Your task to perform on an android device: open device folders in google photos Image 0: 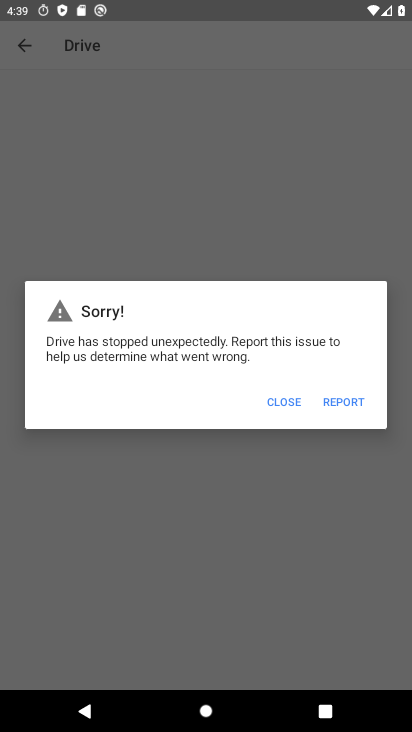
Step 0: press home button
Your task to perform on an android device: open device folders in google photos Image 1: 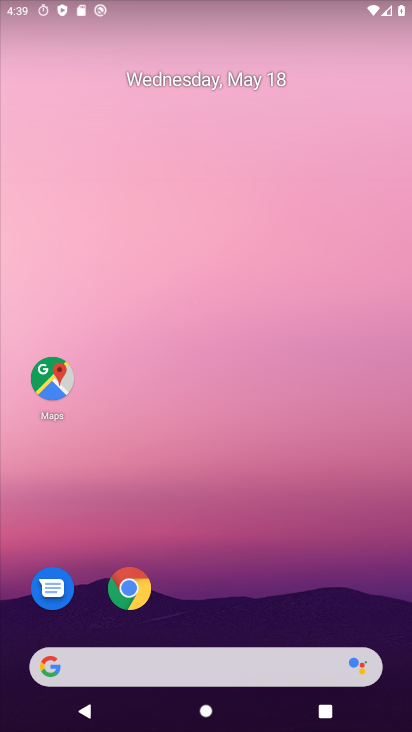
Step 1: drag from (227, 598) to (300, 45)
Your task to perform on an android device: open device folders in google photos Image 2: 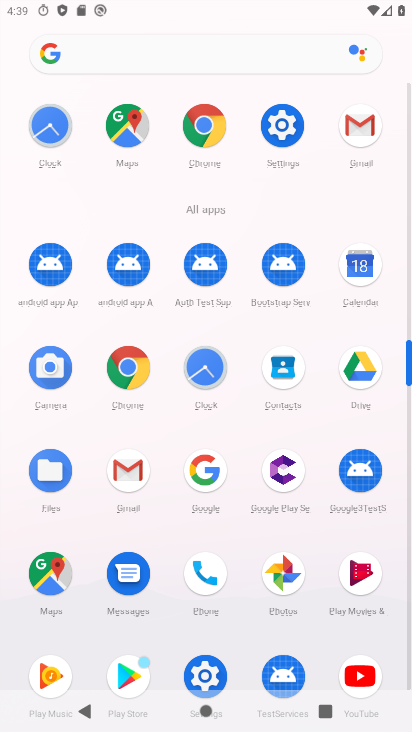
Step 2: click (276, 569)
Your task to perform on an android device: open device folders in google photos Image 3: 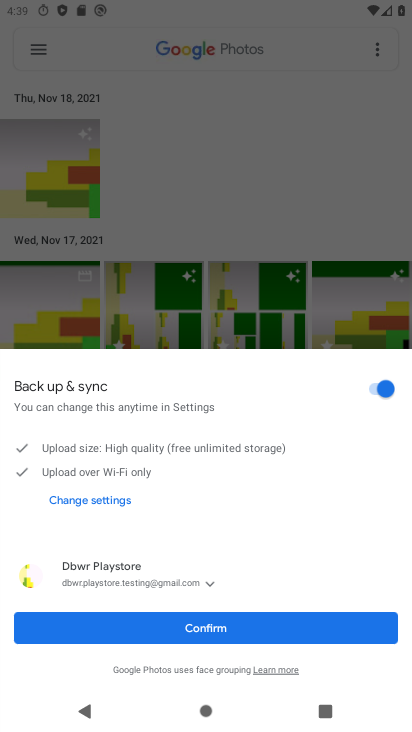
Step 3: click (211, 639)
Your task to perform on an android device: open device folders in google photos Image 4: 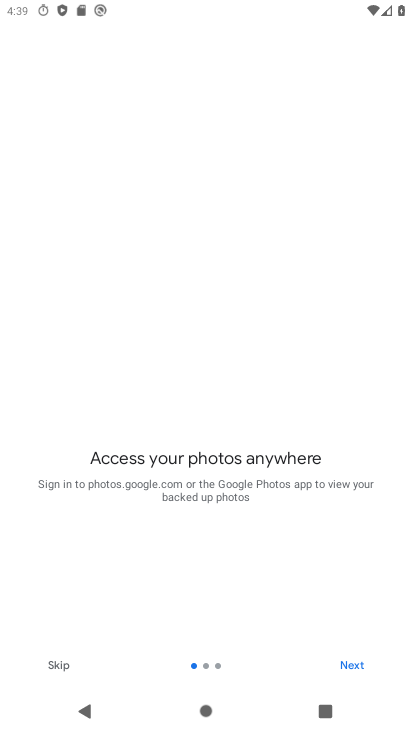
Step 4: click (352, 667)
Your task to perform on an android device: open device folders in google photos Image 5: 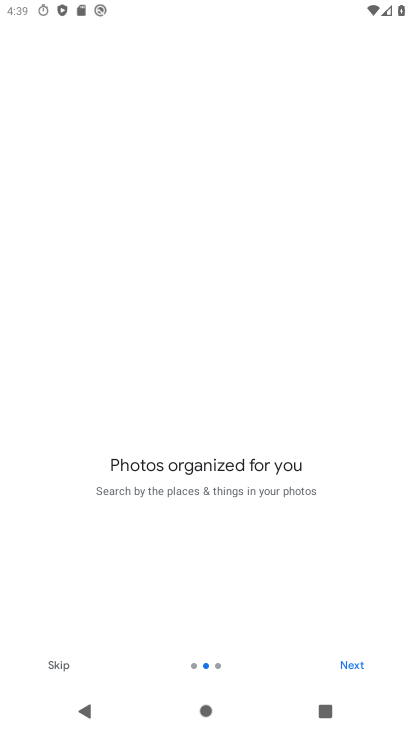
Step 5: click (352, 667)
Your task to perform on an android device: open device folders in google photos Image 6: 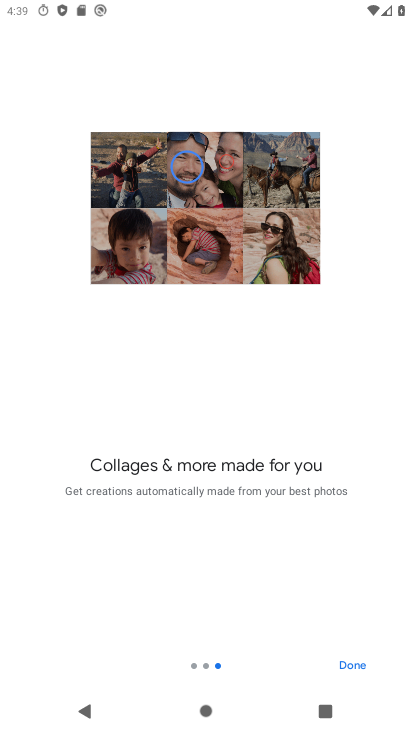
Step 6: click (352, 667)
Your task to perform on an android device: open device folders in google photos Image 7: 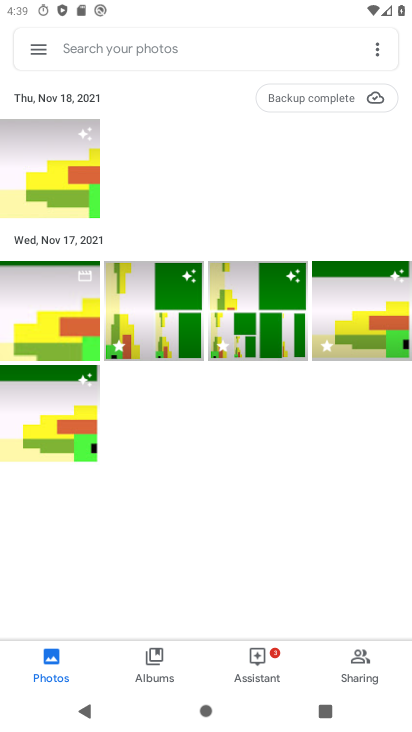
Step 7: click (38, 49)
Your task to perform on an android device: open device folders in google photos Image 8: 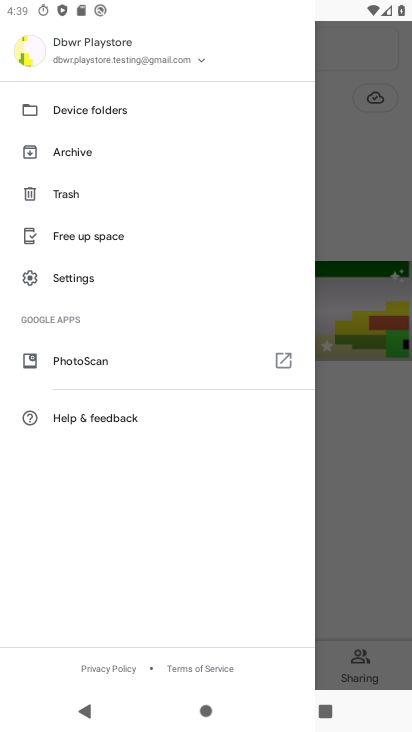
Step 8: click (84, 108)
Your task to perform on an android device: open device folders in google photos Image 9: 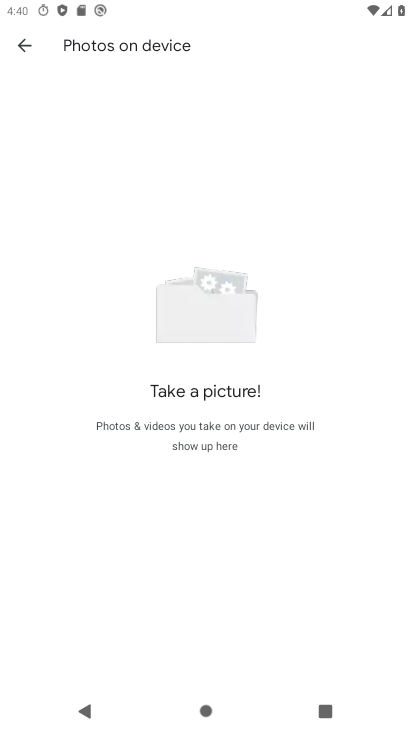
Step 9: task complete